Your task to perform on an android device: What's the news this afternoon? Image 0: 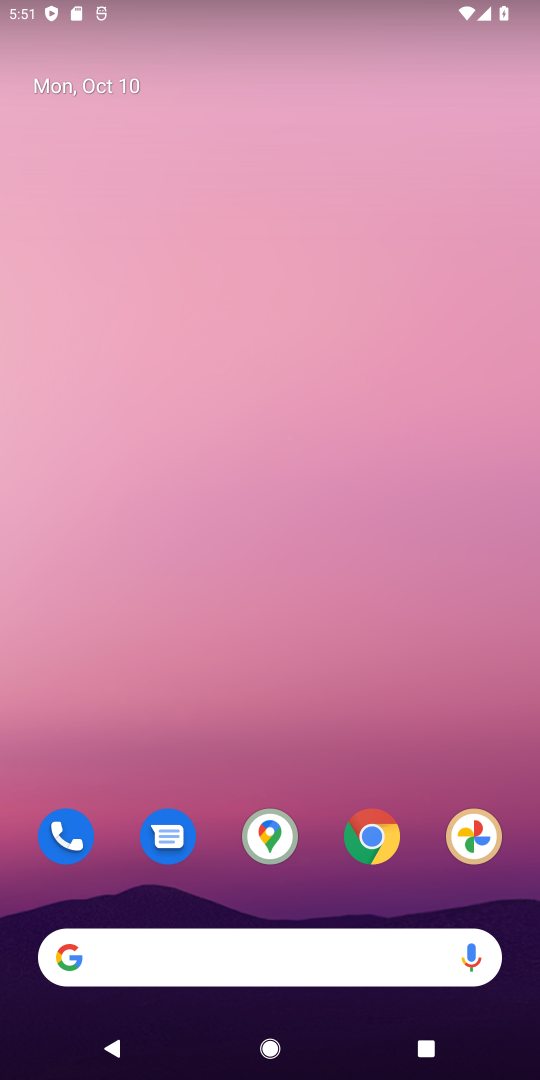
Step 0: click (368, 839)
Your task to perform on an android device: What's the news this afternoon? Image 1: 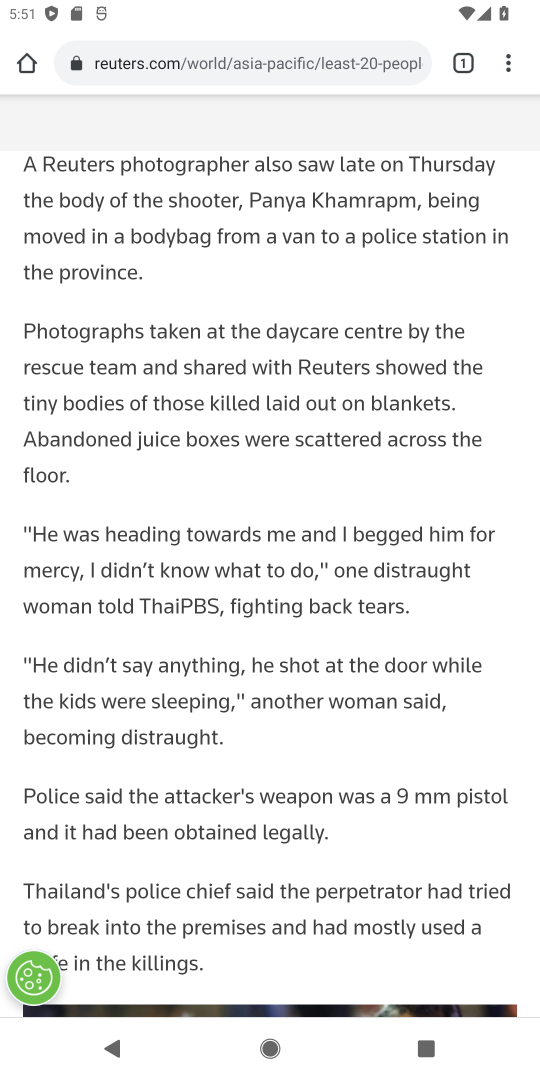
Step 1: click (261, 47)
Your task to perform on an android device: What's the news this afternoon? Image 2: 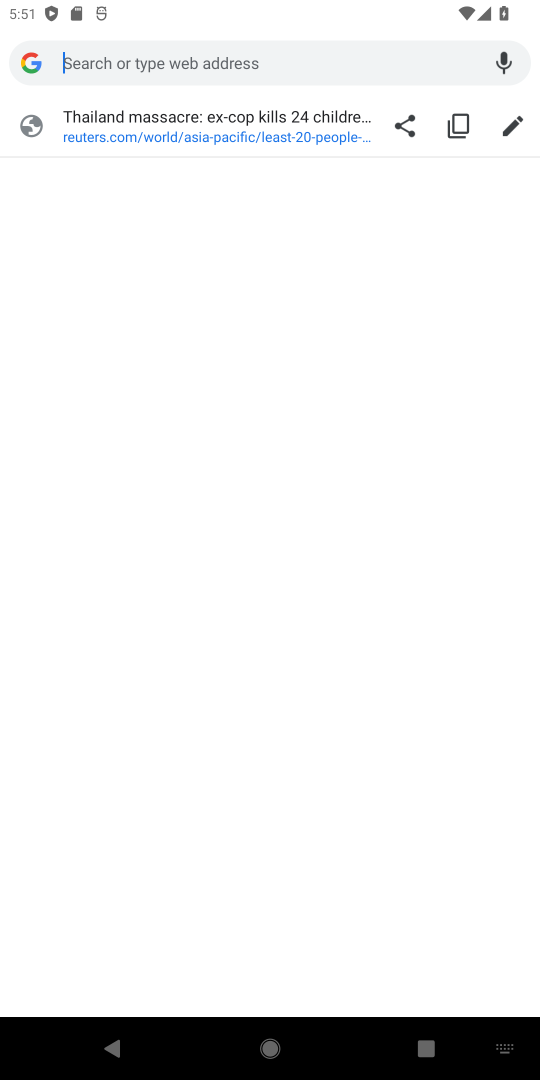
Step 2: type "news this afternoon?"
Your task to perform on an android device: What's the news this afternoon? Image 3: 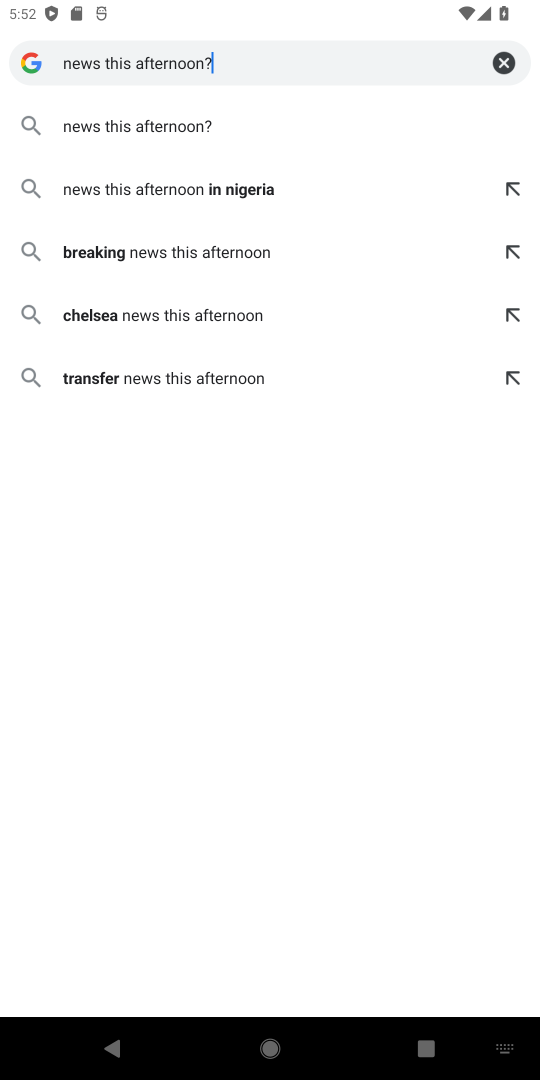
Step 3: click (89, 130)
Your task to perform on an android device: What's the news this afternoon? Image 4: 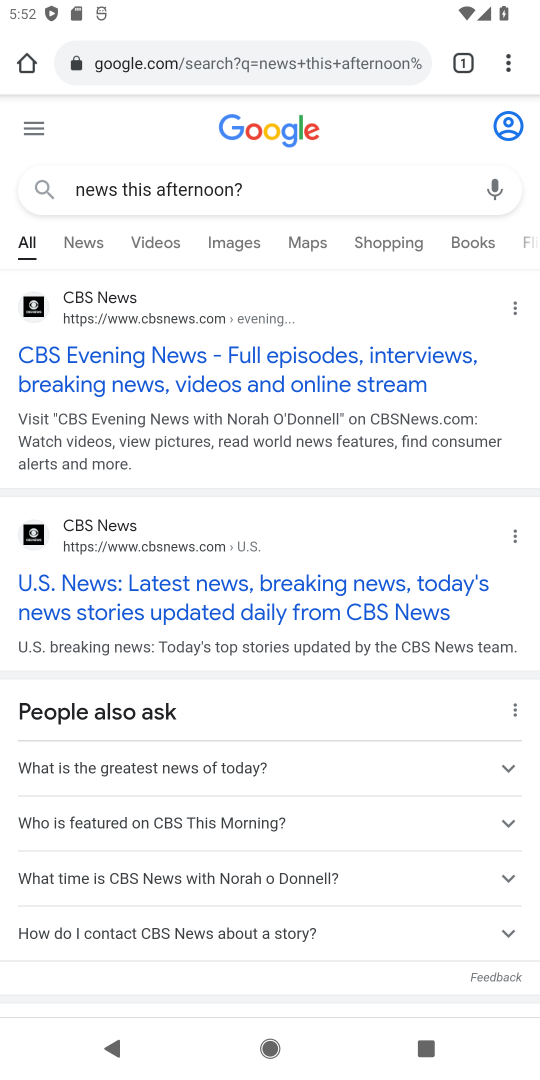
Step 4: click (92, 355)
Your task to perform on an android device: What's the news this afternoon? Image 5: 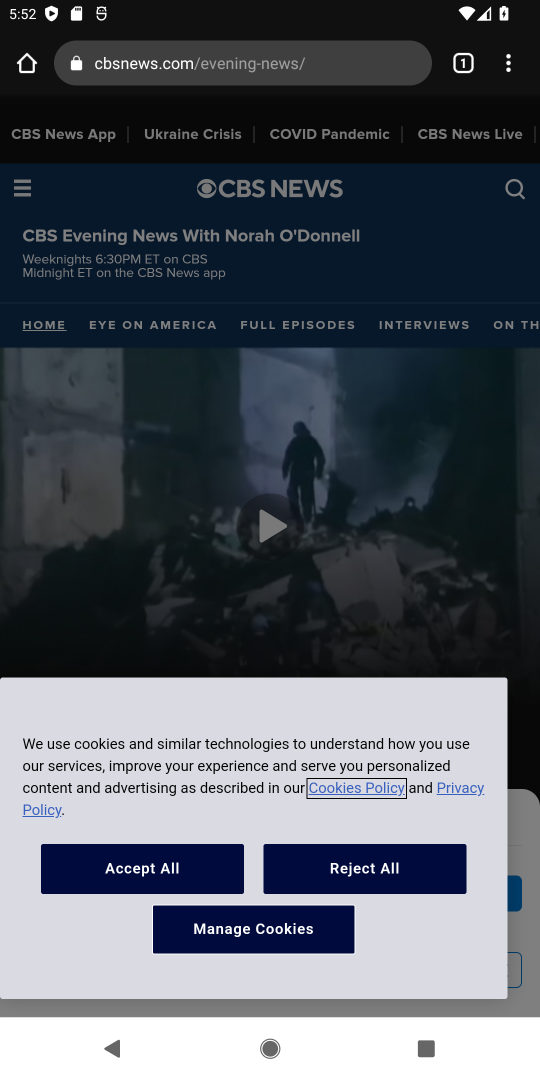
Step 5: click (138, 869)
Your task to perform on an android device: What's the news this afternoon? Image 6: 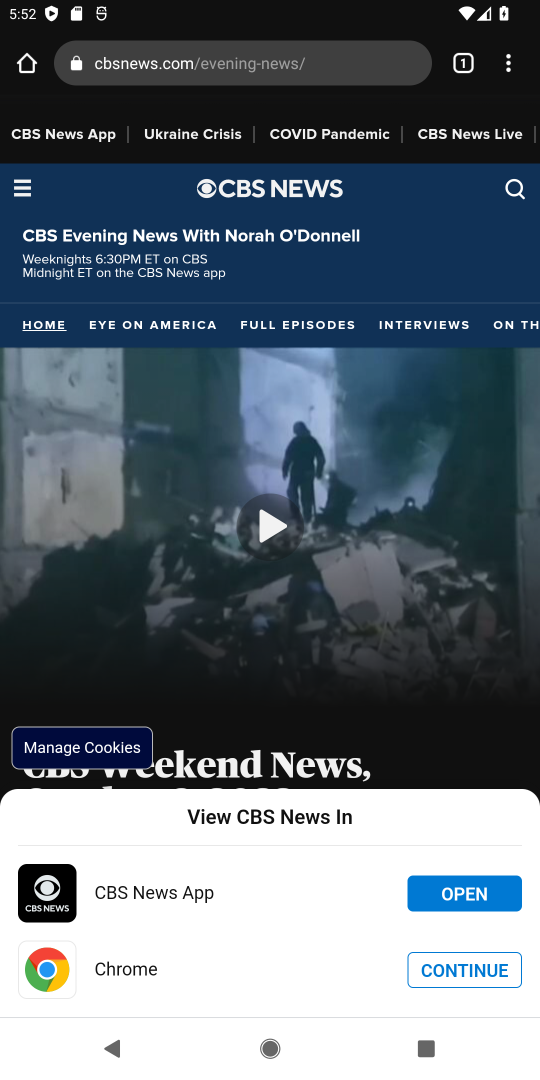
Step 6: drag from (340, 763) to (325, 123)
Your task to perform on an android device: What's the news this afternoon? Image 7: 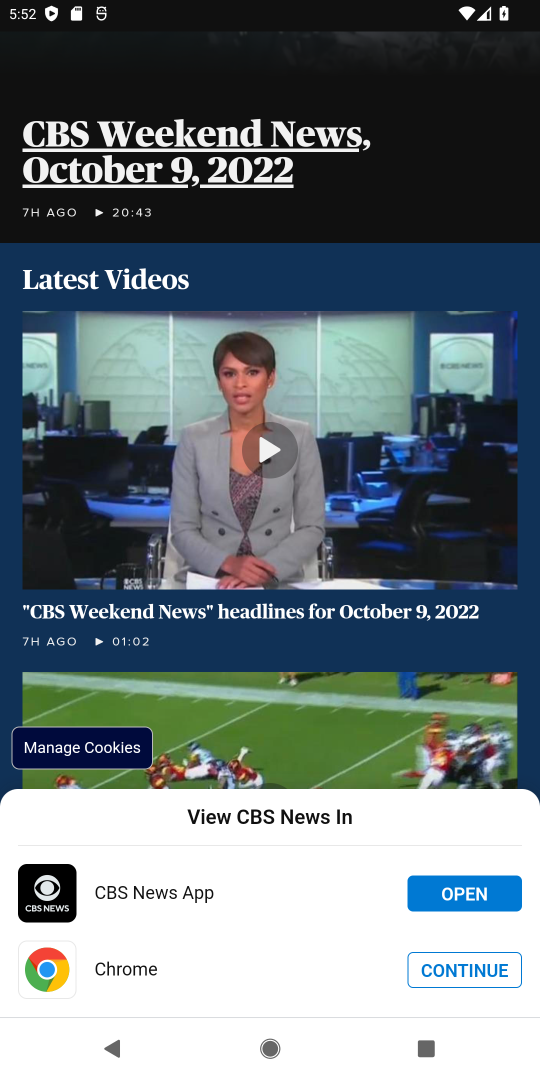
Step 7: drag from (255, 655) to (253, 58)
Your task to perform on an android device: What's the news this afternoon? Image 8: 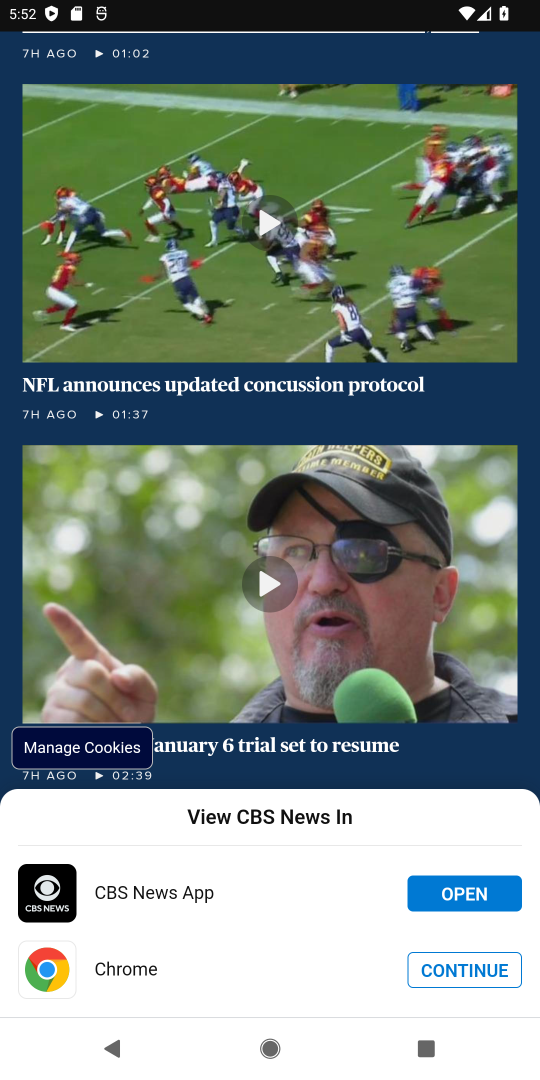
Step 8: drag from (433, 766) to (387, 152)
Your task to perform on an android device: What's the news this afternoon? Image 9: 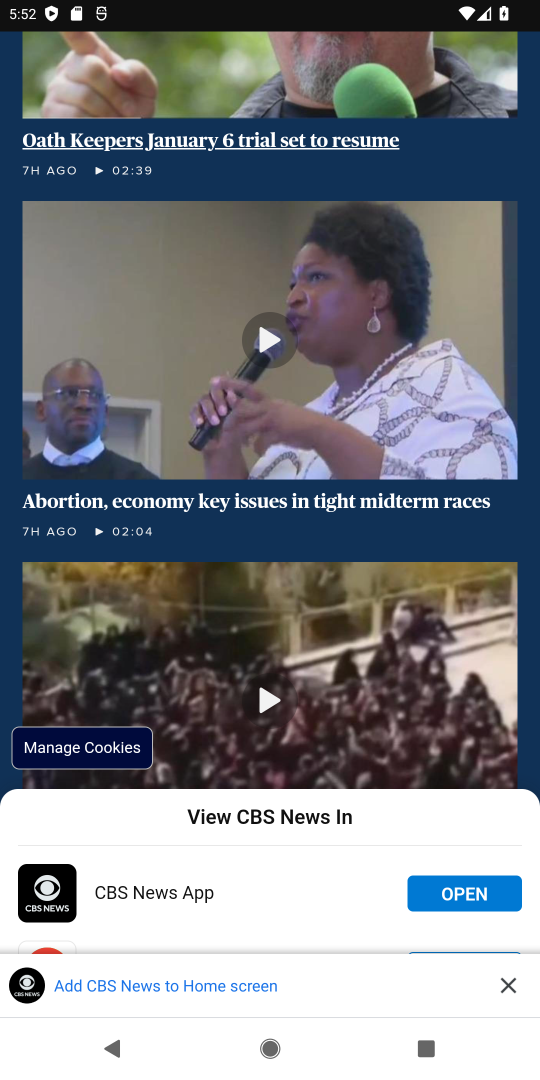
Step 9: click (178, 499)
Your task to perform on an android device: What's the news this afternoon? Image 10: 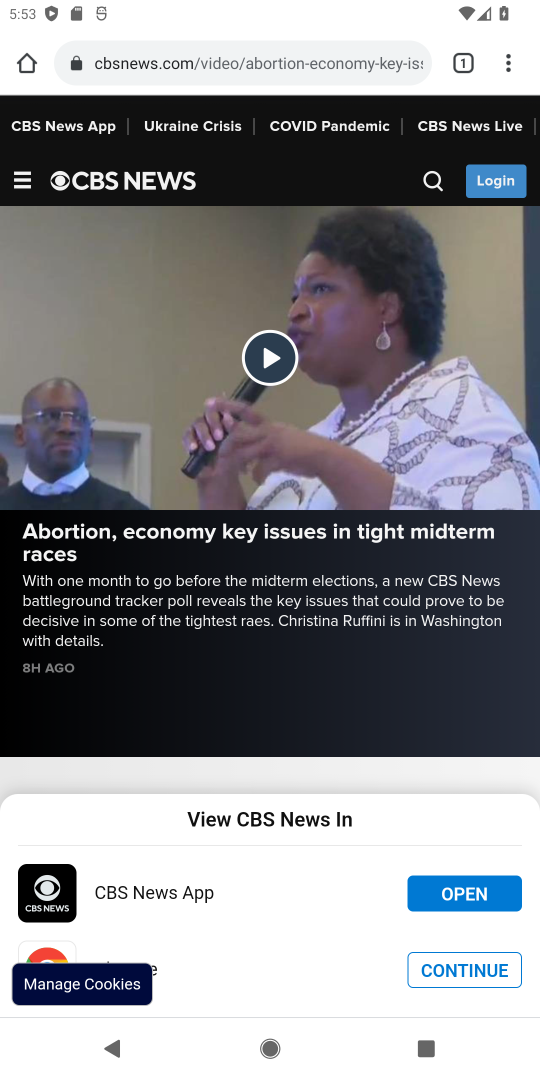
Step 10: task complete